Your task to perform on an android device: turn off translation in the chrome app Image 0: 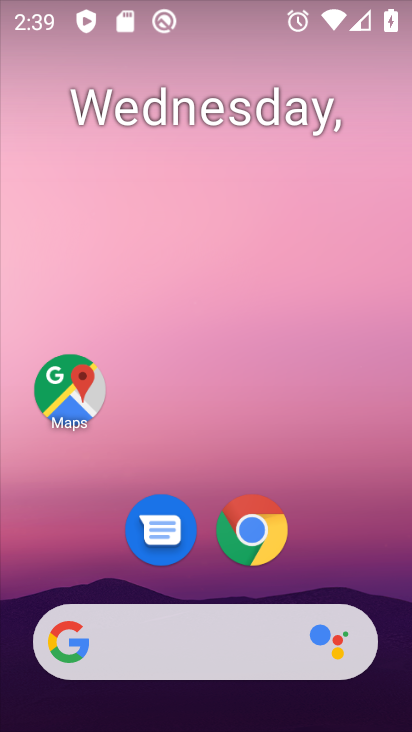
Step 0: drag from (242, 625) to (216, 163)
Your task to perform on an android device: turn off translation in the chrome app Image 1: 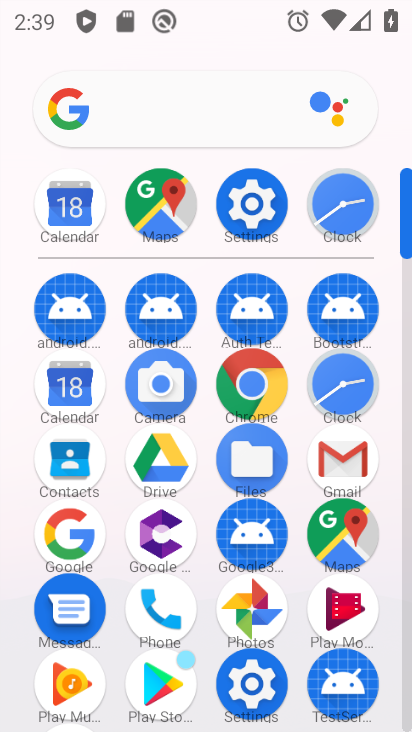
Step 1: click (260, 386)
Your task to perform on an android device: turn off translation in the chrome app Image 2: 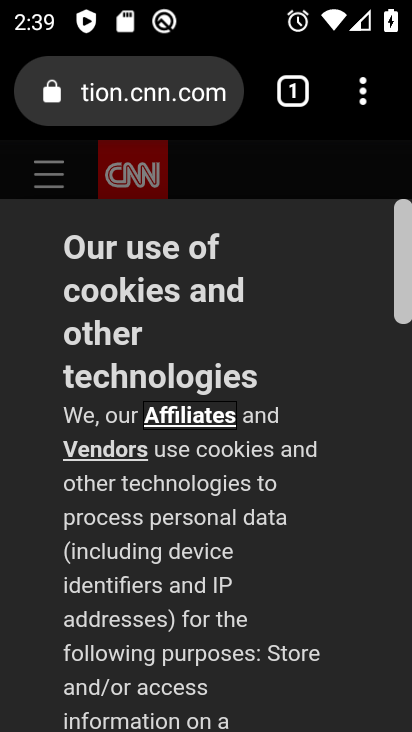
Step 2: click (356, 112)
Your task to perform on an android device: turn off translation in the chrome app Image 3: 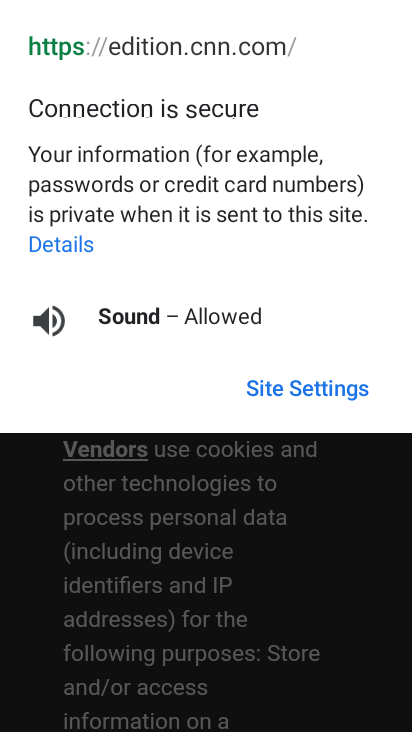
Step 3: click (217, 502)
Your task to perform on an android device: turn off translation in the chrome app Image 4: 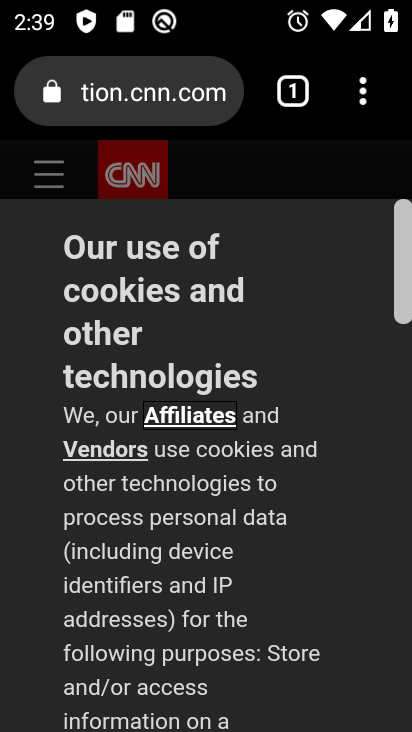
Step 4: drag from (365, 95) to (181, 545)
Your task to perform on an android device: turn off translation in the chrome app Image 5: 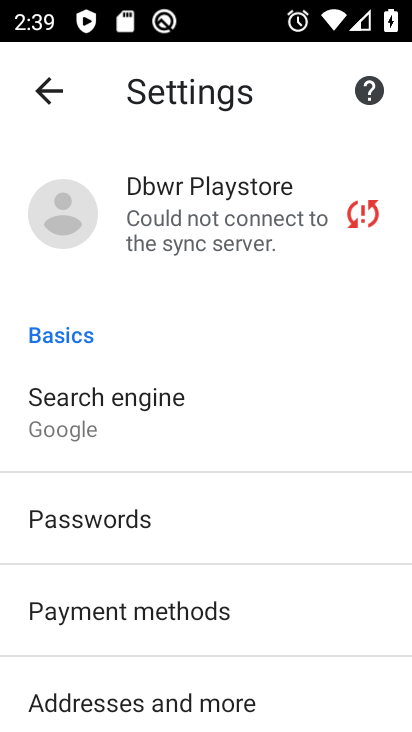
Step 5: drag from (181, 545) to (201, 102)
Your task to perform on an android device: turn off translation in the chrome app Image 6: 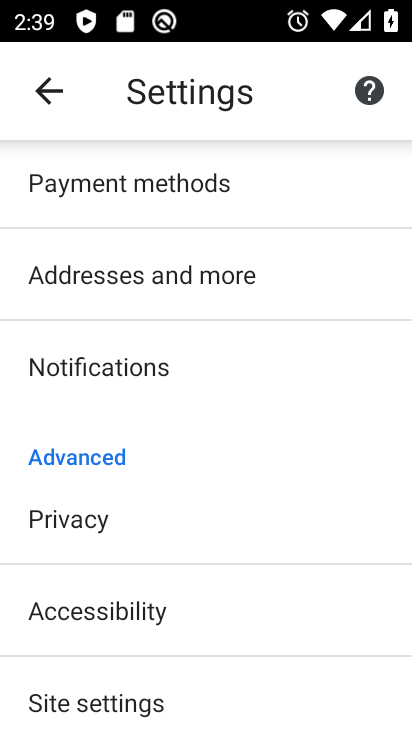
Step 6: drag from (172, 630) to (97, 29)
Your task to perform on an android device: turn off translation in the chrome app Image 7: 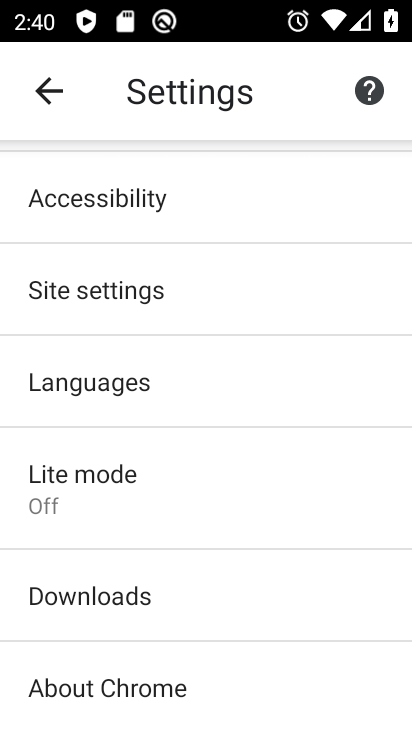
Step 7: click (139, 392)
Your task to perform on an android device: turn off translation in the chrome app Image 8: 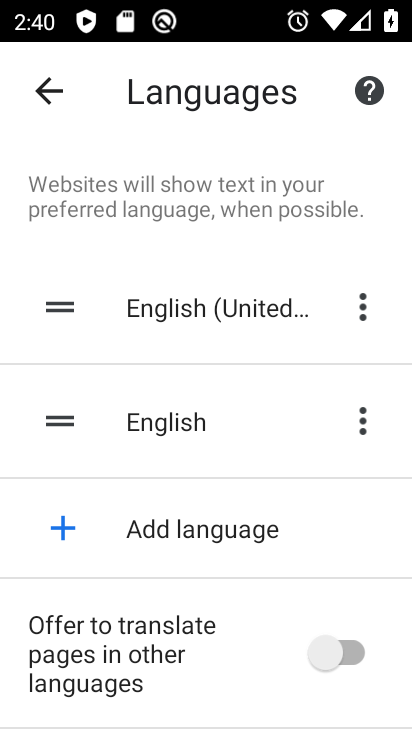
Step 8: task complete